Your task to perform on an android device: star an email in the gmail app Image 0: 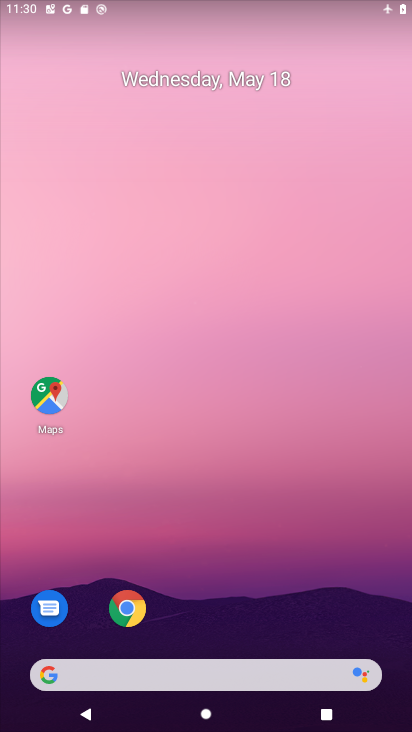
Step 0: drag from (218, 558) to (184, 183)
Your task to perform on an android device: star an email in the gmail app Image 1: 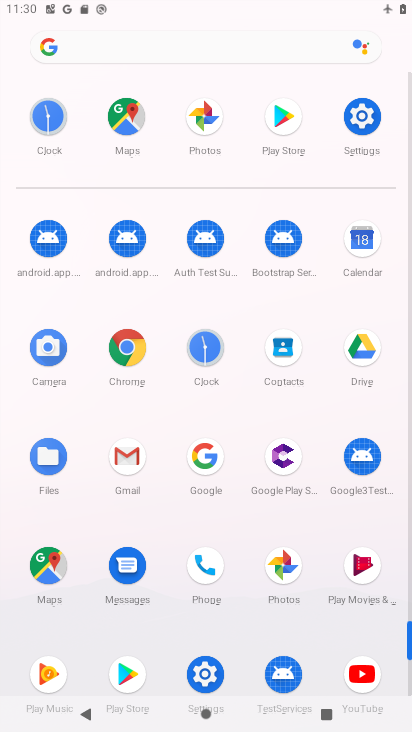
Step 1: click (120, 467)
Your task to perform on an android device: star an email in the gmail app Image 2: 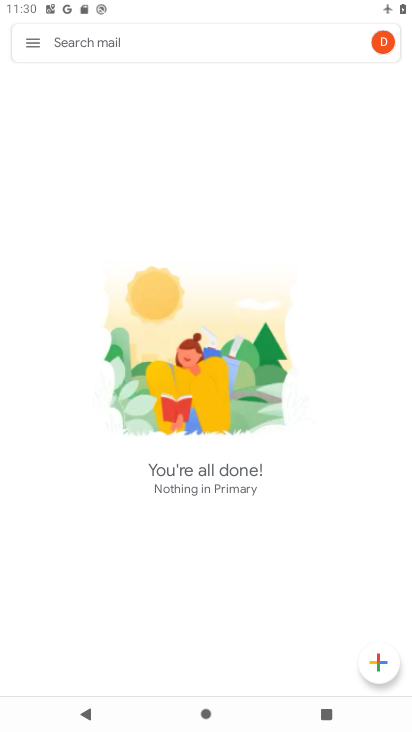
Step 2: click (30, 46)
Your task to perform on an android device: star an email in the gmail app Image 3: 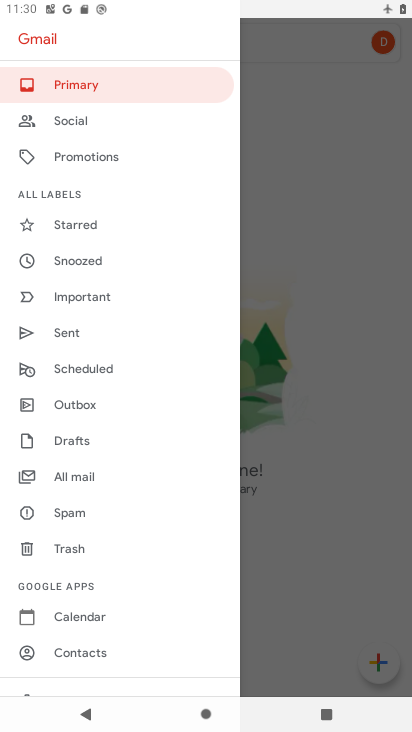
Step 3: drag from (145, 544) to (132, 498)
Your task to perform on an android device: star an email in the gmail app Image 4: 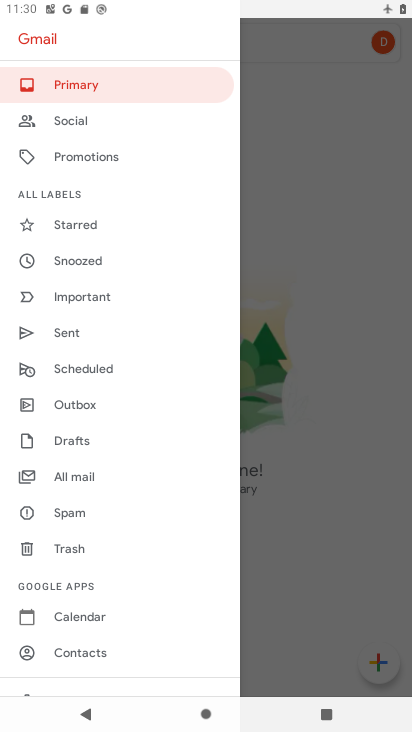
Step 4: click (294, 458)
Your task to perform on an android device: star an email in the gmail app Image 5: 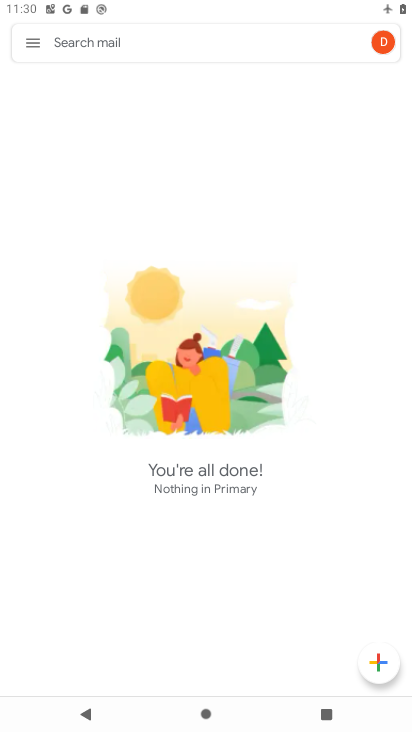
Step 5: task complete